Your task to perform on an android device: Open privacy settings Image 0: 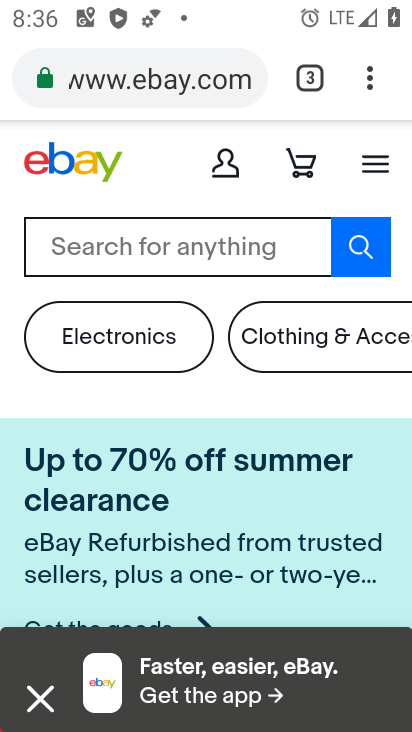
Step 0: drag from (171, 10) to (163, 359)
Your task to perform on an android device: Open privacy settings Image 1: 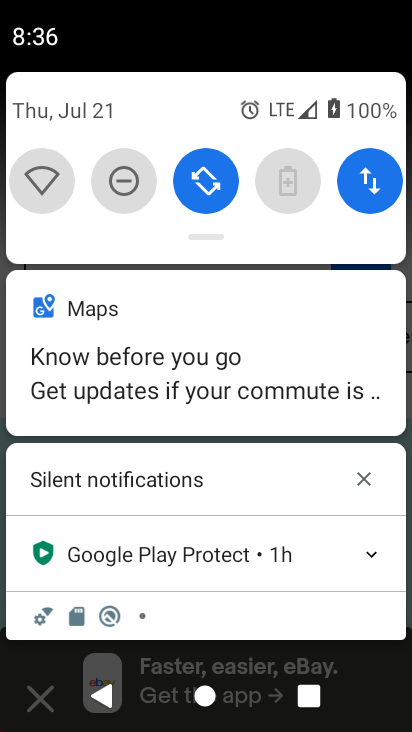
Step 1: drag from (166, 204) to (173, 458)
Your task to perform on an android device: Open privacy settings Image 2: 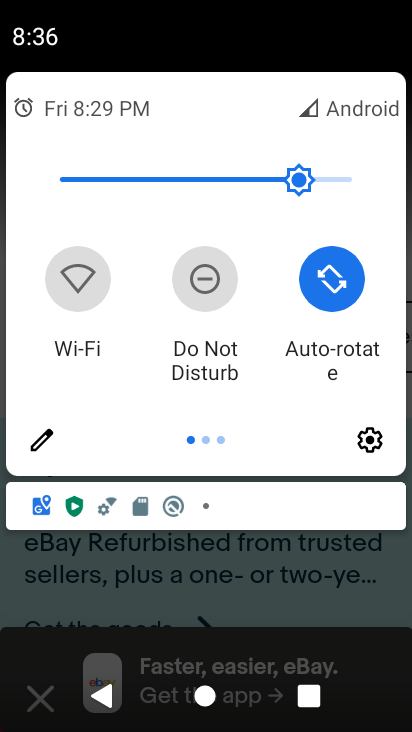
Step 2: click (374, 431)
Your task to perform on an android device: Open privacy settings Image 3: 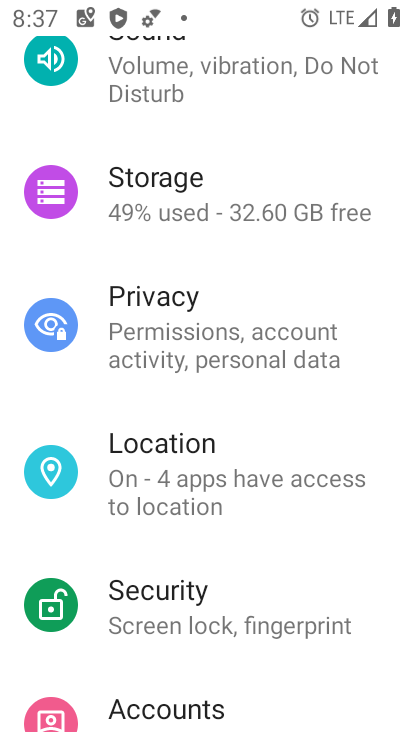
Step 3: drag from (276, 274) to (214, 574)
Your task to perform on an android device: Open privacy settings Image 4: 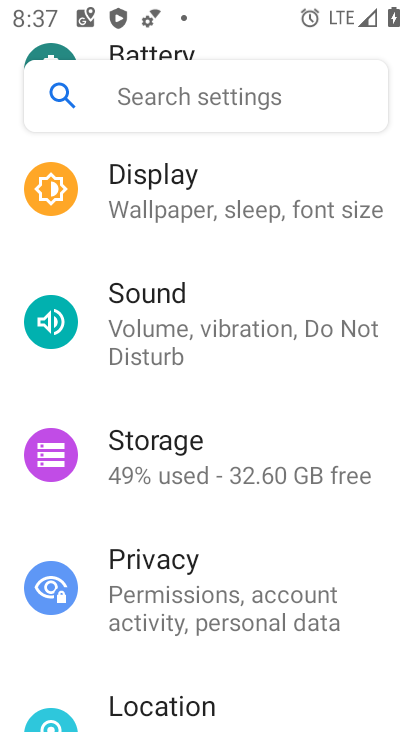
Step 4: drag from (140, 311) to (137, 627)
Your task to perform on an android device: Open privacy settings Image 5: 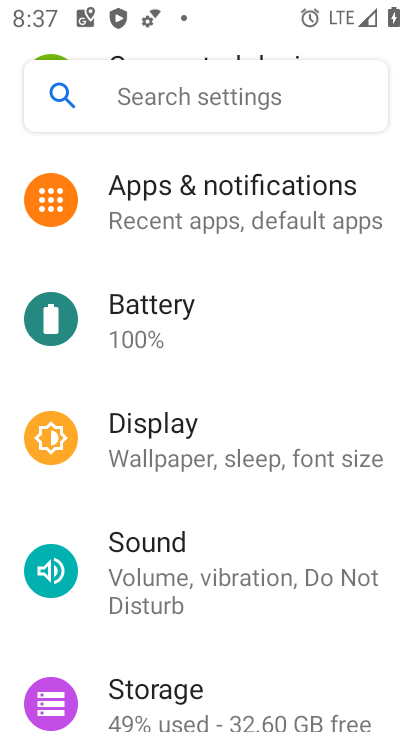
Step 5: drag from (196, 606) to (203, 303)
Your task to perform on an android device: Open privacy settings Image 6: 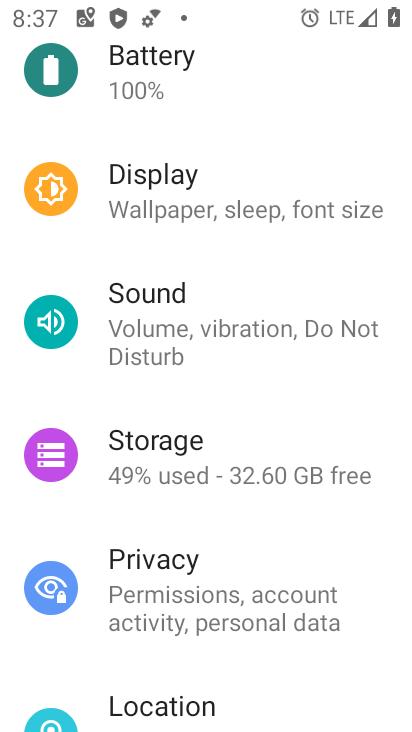
Step 6: click (204, 586)
Your task to perform on an android device: Open privacy settings Image 7: 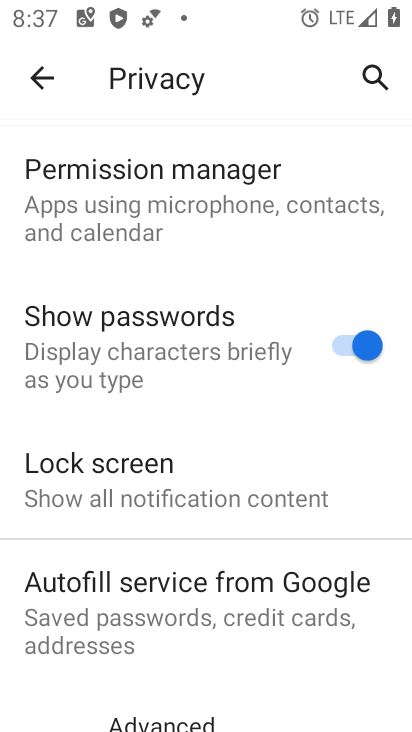
Step 7: task complete